Your task to perform on an android device: check android version Image 0: 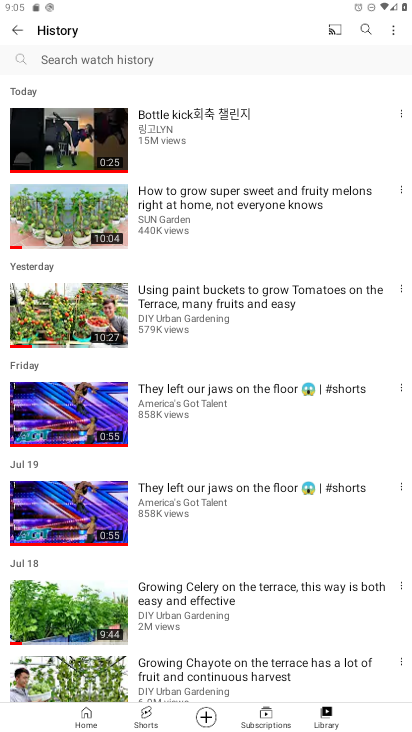
Step 0: press home button
Your task to perform on an android device: check android version Image 1: 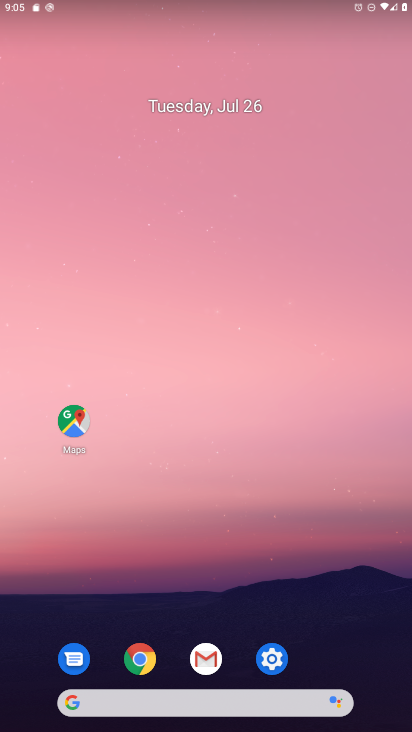
Step 1: click (259, 658)
Your task to perform on an android device: check android version Image 2: 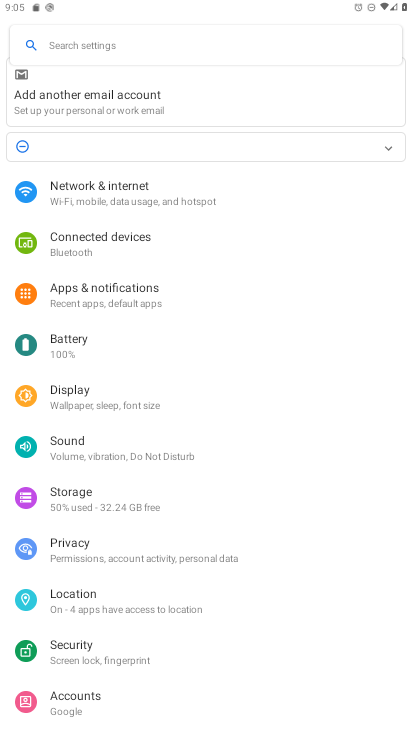
Step 2: click (95, 46)
Your task to perform on an android device: check android version Image 3: 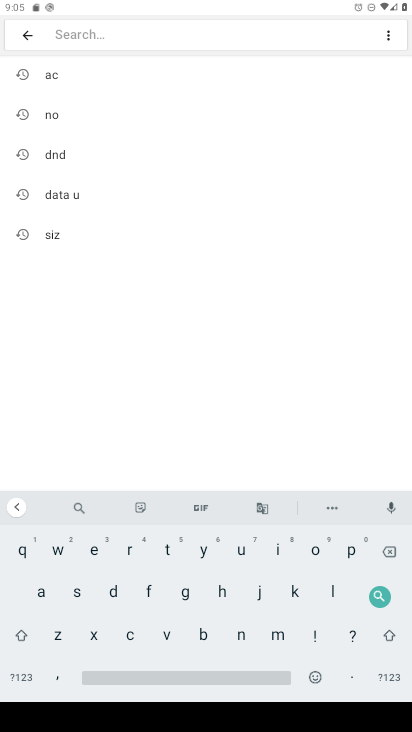
Step 3: click (37, 592)
Your task to perform on an android device: check android version Image 4: 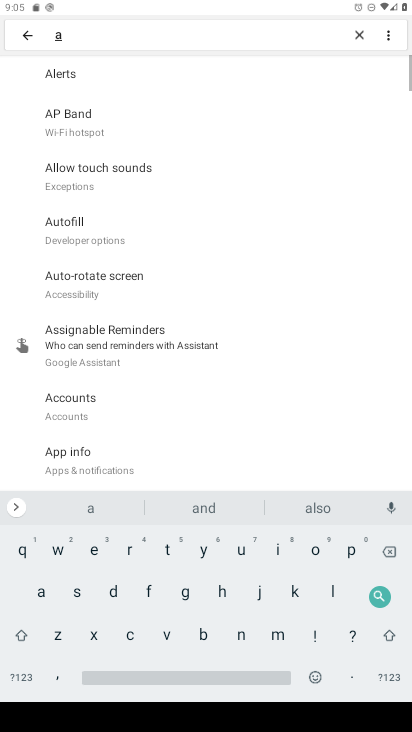
Step 4: click (240, 628)
Your task to perform on an android device: check android version Image 5: 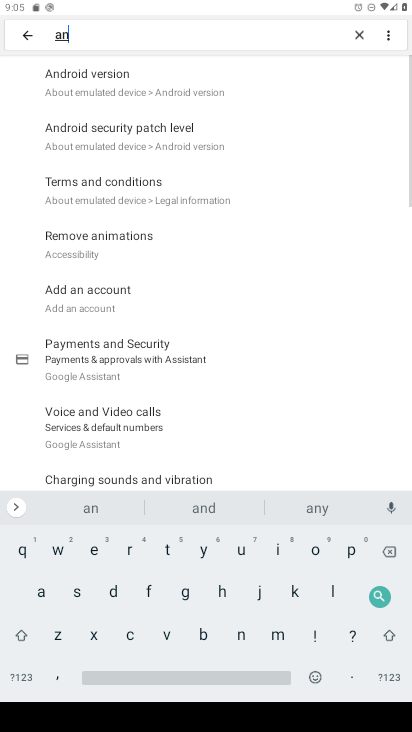
Step 5: click (164, 84)
Your task to perform on an android device: check android version Image 6: 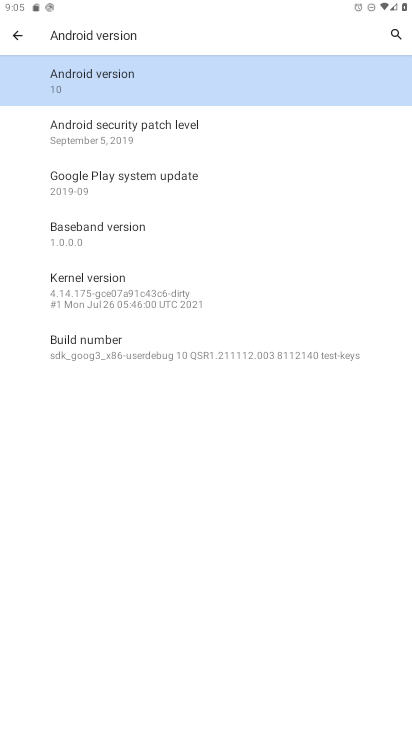
Step 6: click (164, 85)
Your task to perform on an android device: check android version Image 7: 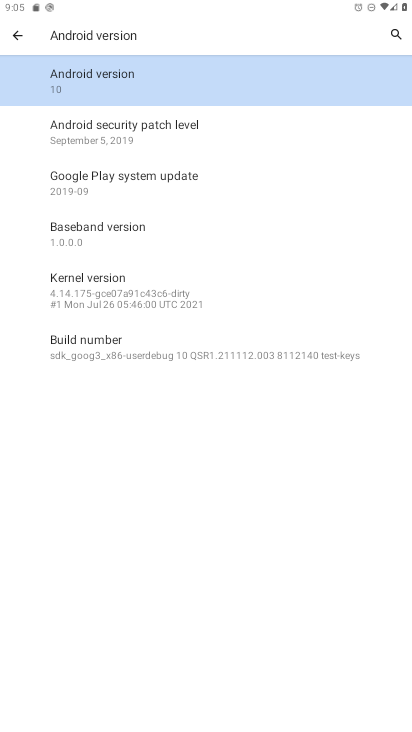
Step 7: task complete